Your task to perform on an android device: Open notification settings Image 0: 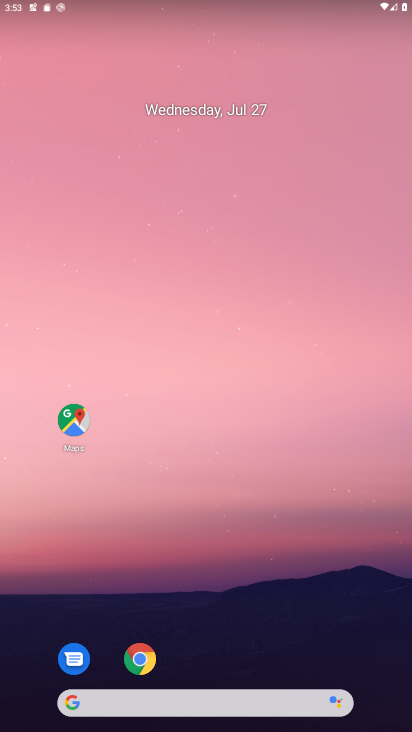
Step 0: drag from (216, 591) to (377, 15)
Your task to perform on an android device: Open notification settings Image 1: 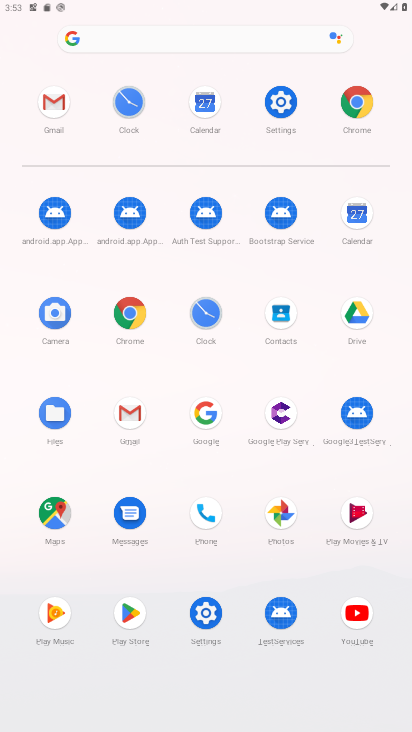
Step 1: click (281, 99)
Your task to perform on an android device: Open notification settings Image 2: 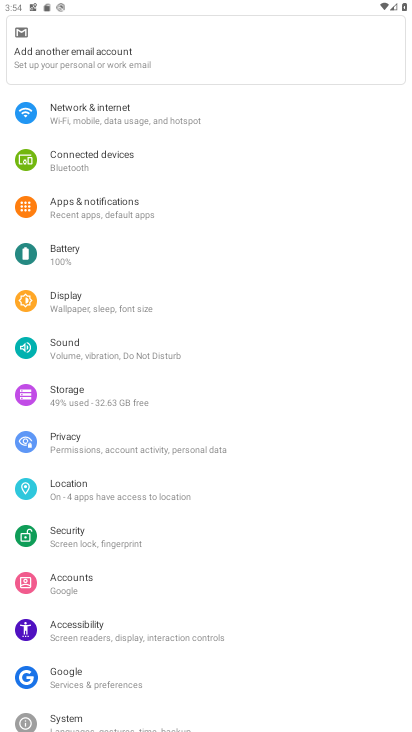
Step 2: click (132, 218)
Your task to perform on an android device: Open notification settings Image 3: 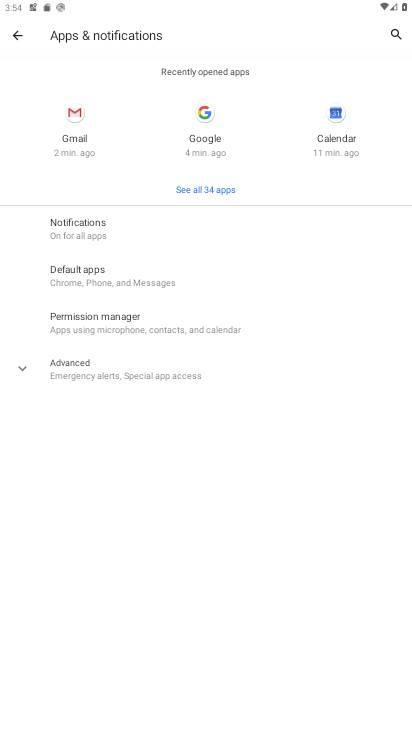
Step 3: click (90, 240)
Your task to perform on an android device: Open notification settings Image 4: 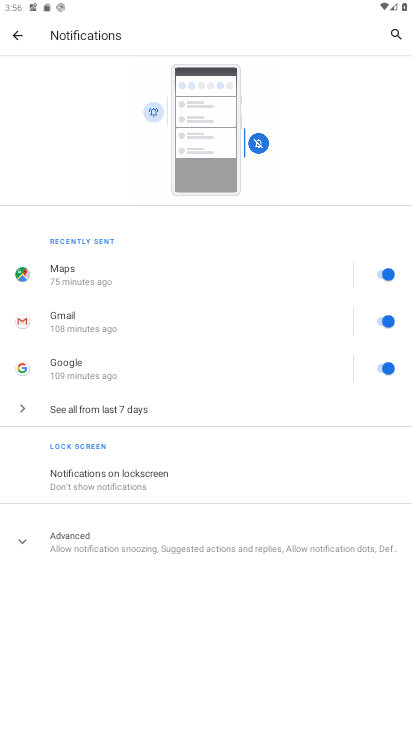
Step 4: task complete